Your task to perform on an android device: Open battery settings Image 0: 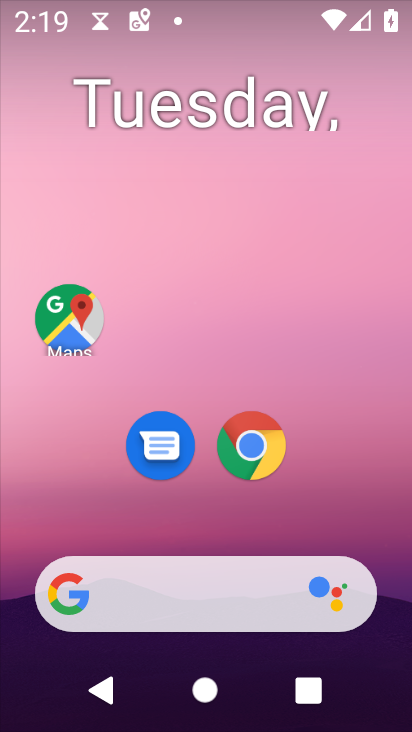
Step 0: drag from (210, 487) to (218, 2)
Your task to perform on an android device: Open battery settings Image 1: 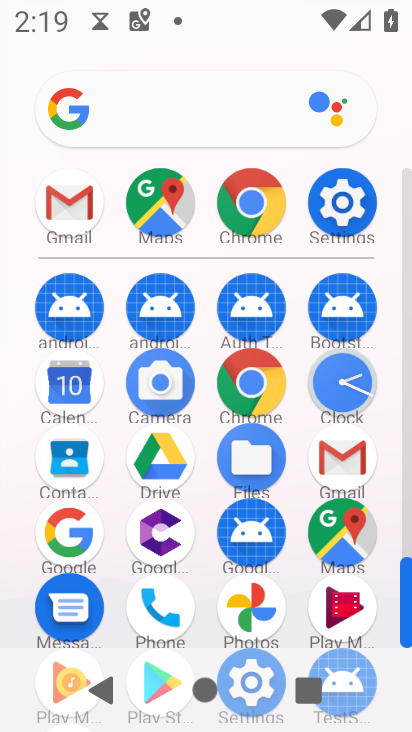
Step 1: click (347, 189)
Your task to perform on an android device: Open battery settings Image 2: 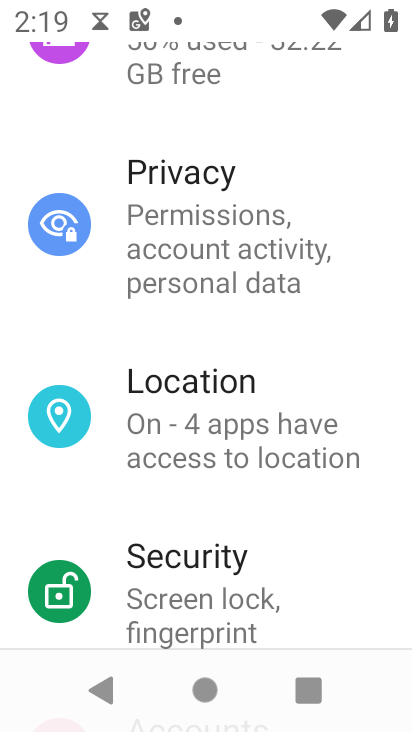
Step 2: drag from (261, 278) to (285, 614)
Your task to perform on an android device: Open battery settings Image 3: 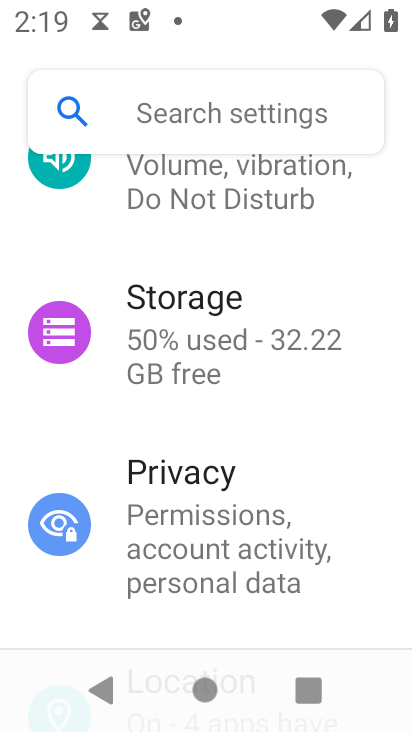
Step 3: drag from (260, 345) to (271, 713)
Your task to perform on an android device: Open battery settings Image 4: 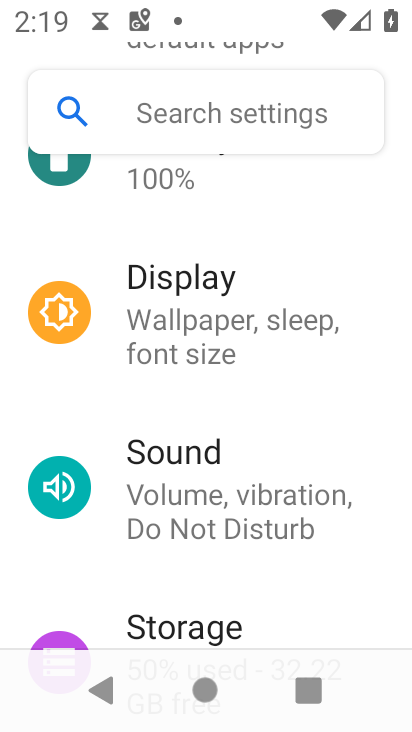
Step 4: drag from (226, 388) to (285, 680)
Your task to perform on an android device: Open battery settings Image 5: 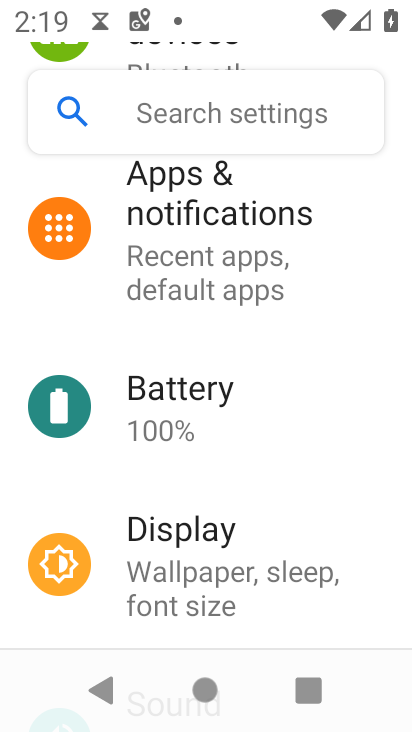
Step 5: click (199, 408)
Your task to perform on an android device: Open battery settings Image 6: 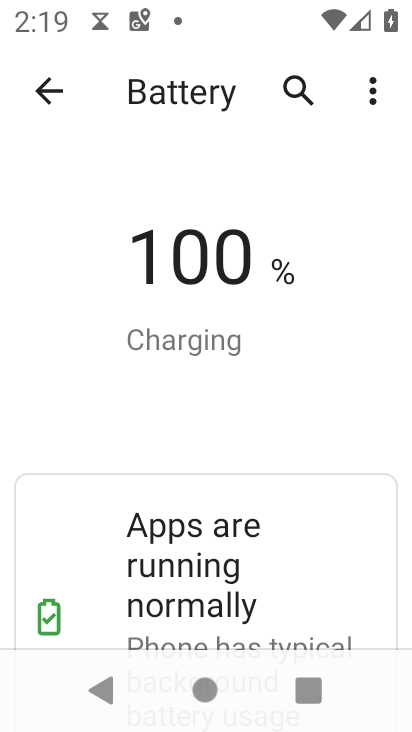
Step 6: task complete